Your task to perform on an android device: open wifi settings Image 0: 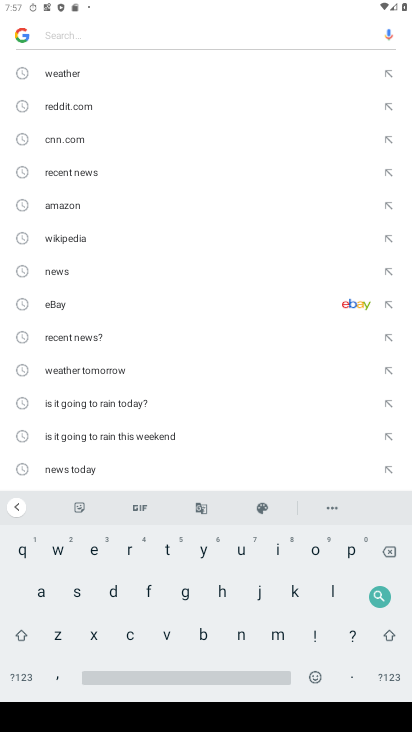
Step 0: press home button
Your task to perform on an android device: open wifi settings Image 1: 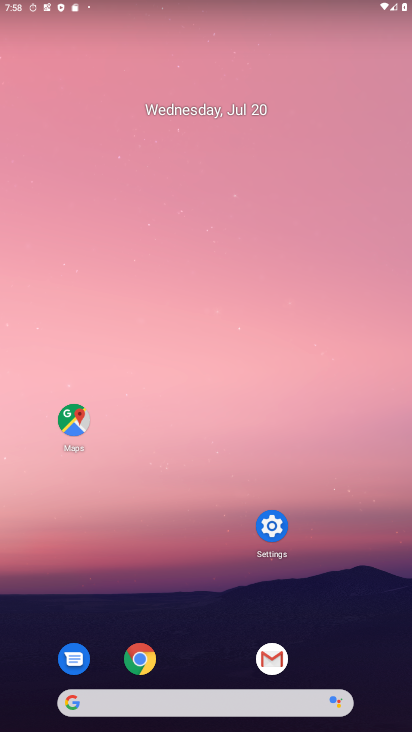
Step 1: click (264, 525)
Your task to perform on an android device: open wifi settings Image 2: 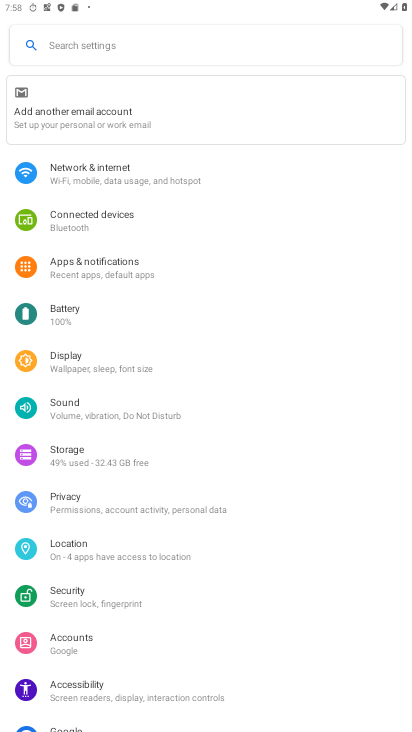
Step 2: click (118, 180)
Your task to perform on an android device: open wifi settings Image 3: 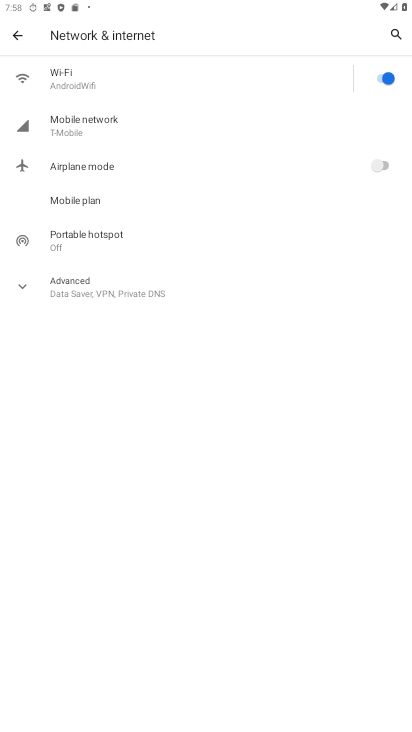
Step 3: click (136, 78)
Your task to perform on an android device: open wifi settings Image 4: 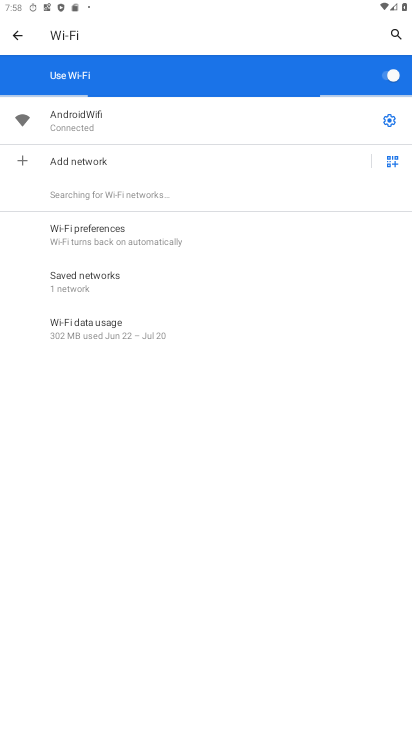
Step 4: task complete